Your task to perform on an android device: Open Reddit.com Image 0: 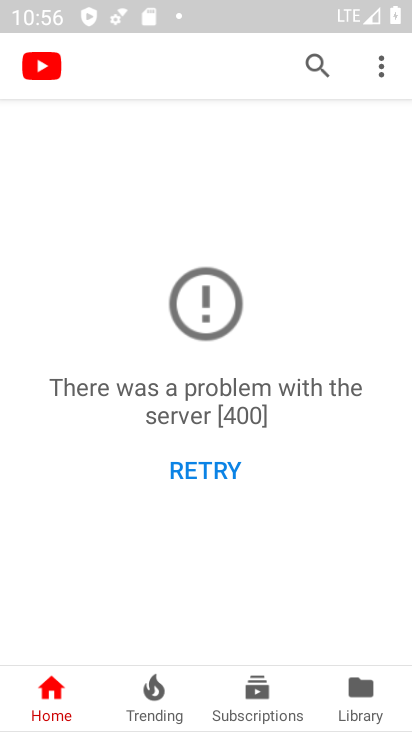
Step 0: press home button
Your task to perform on an android device: Open Reddit.com Image 1: 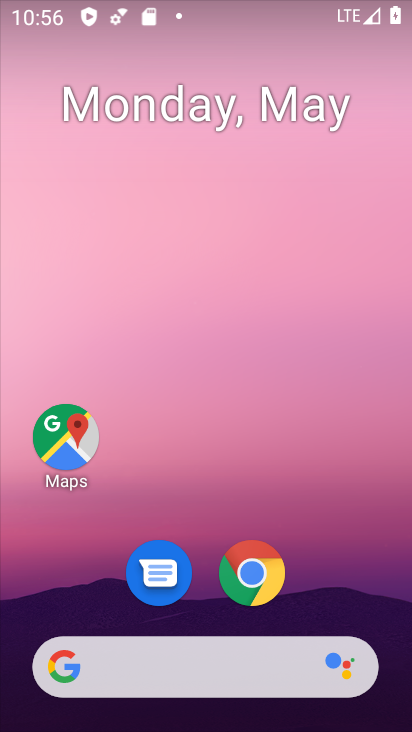
Step 1: drag from (125, 644) to (150, 266)
Your task to perform on an android device: Open Reddit.com Image 2: 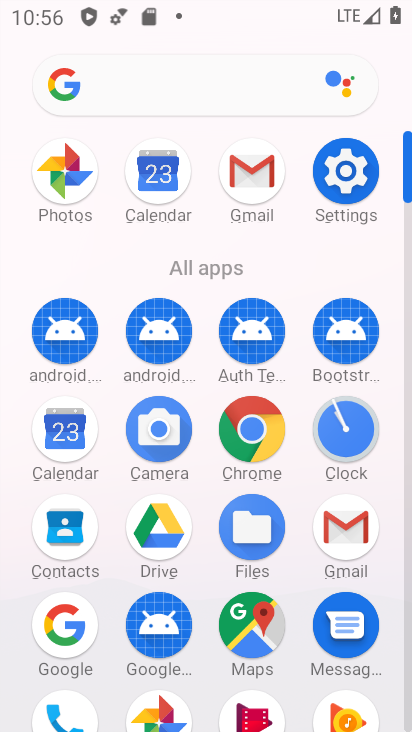
Step 2: click (69, 622)
Your task to perform on an android device: Open Reddit.com Image 3: 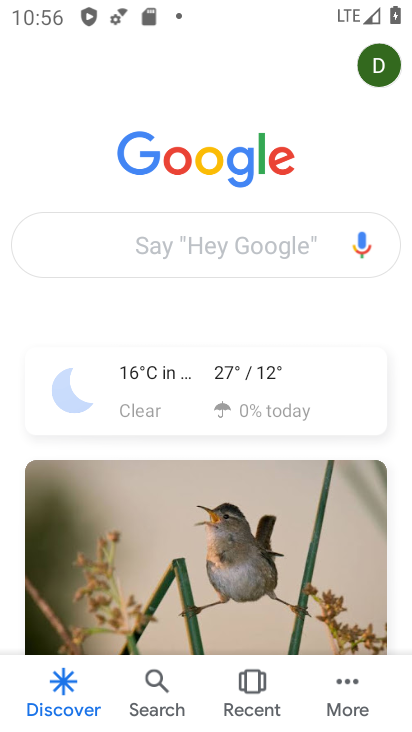
Step 3: click (148, 249)
Your task to perform on an android device: Open Reddit.com Image 4: 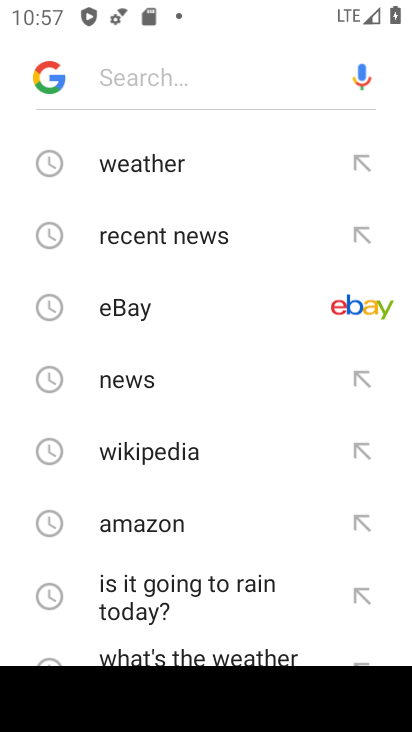
Step 4: drag from (151, 451) to (150, 166)
Your task to perform on an android device: Open Reddit.com Image 5: 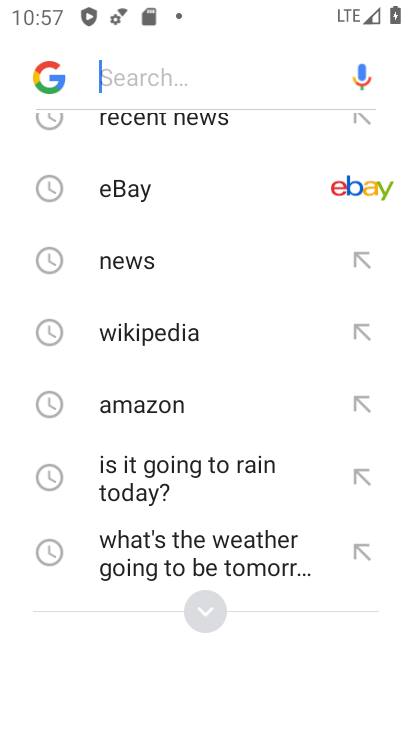
Step 5: drag from (131, 524) to (119, 164)
Your task to perform on an android device: Open Reddit.com Image 6: 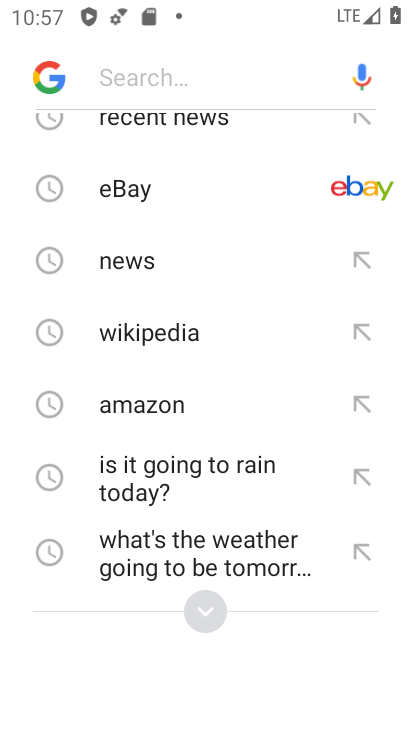
Step 6: click (206, 618)
Your task to perform on an android device: Open Reddit.com Image 7: 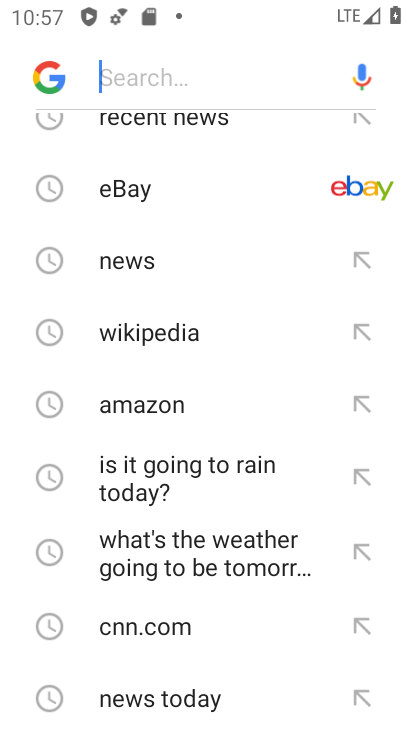
Step 7: drag from (184, 687) to (178, 314)
Your task to perform on an android device: Open Reddit.com Image 8: 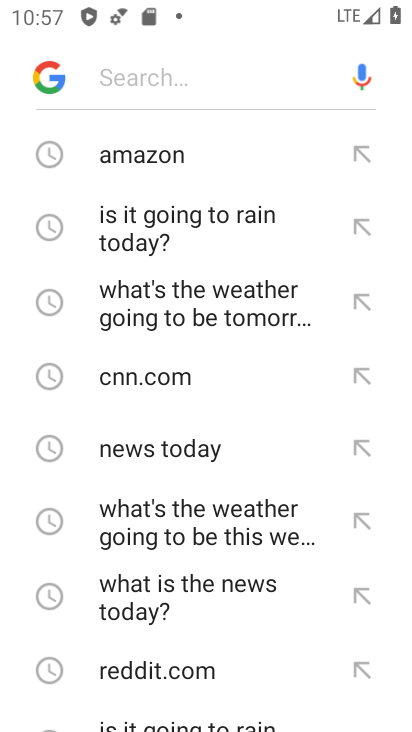
Step 8: click (166, 672)
Your task to perform on an android device: Open Reddit.com Image 9: 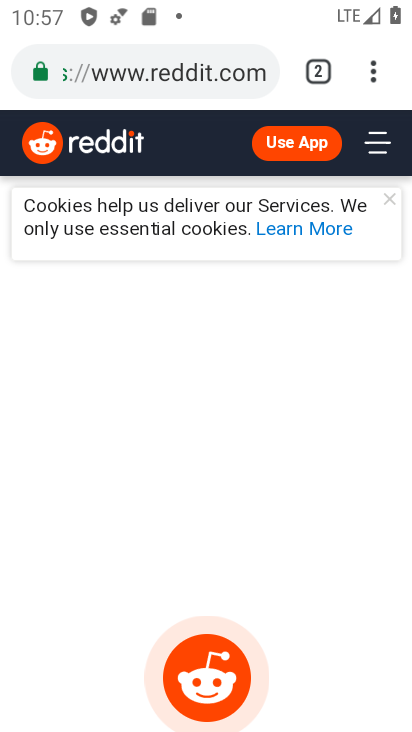
Step 9: task complete